Your task to perform on an android device: show emergency info Image 0: 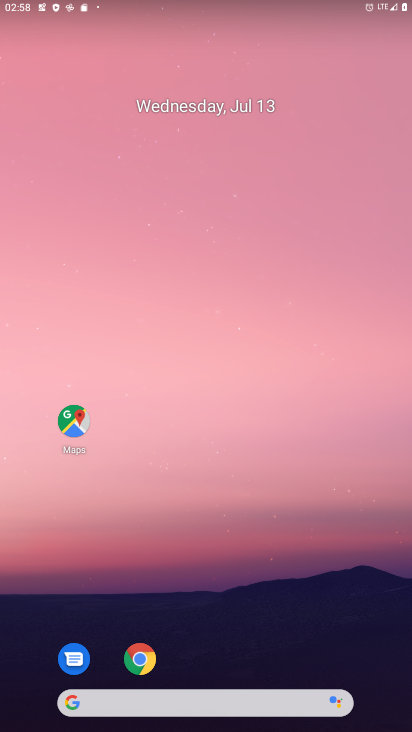
Step 0: click (201, 689)
Your task to perform on an android device: show emergency info Image 1: 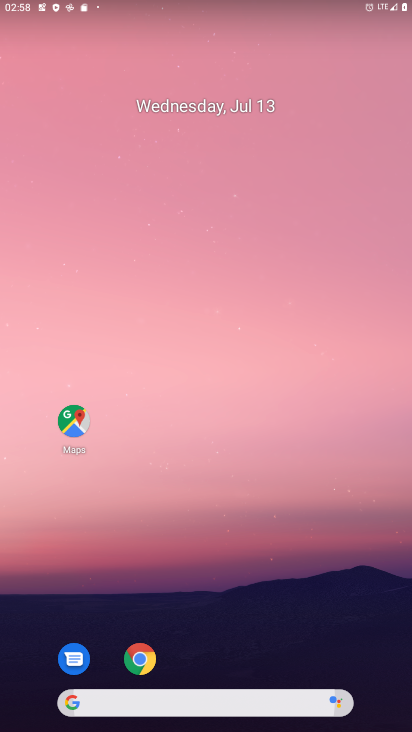
Step 1: drag from (195, 354) to (195, 221)
Your task to perform on an android device: show emergency info Image 2: 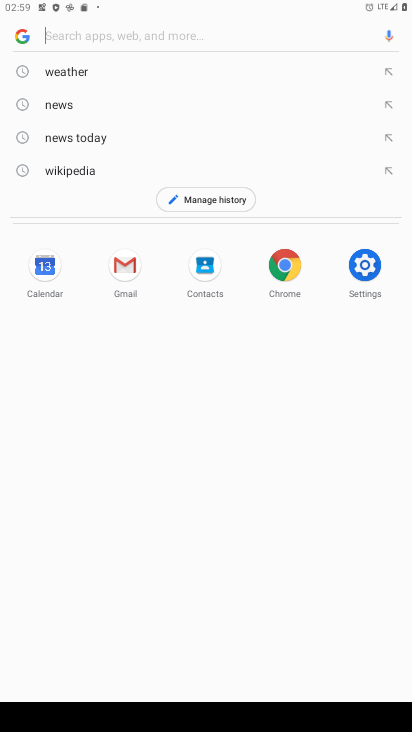
Step 2: press home button
Your task to perform on an android device: show emergency info Image 3: 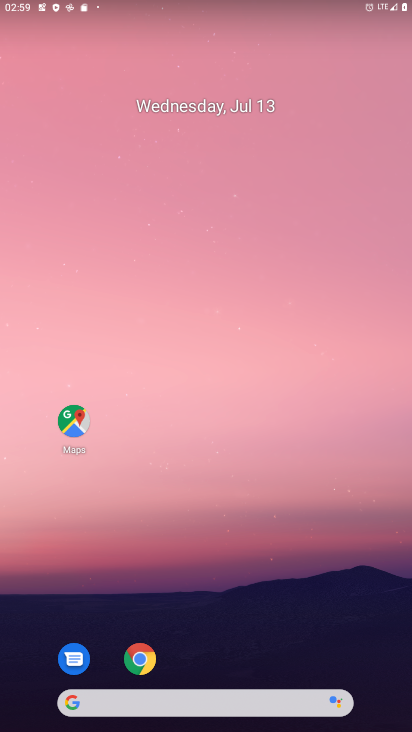
Step 3: click (233, 724)
Your task to perform on an android device: show emergency info Image 4: 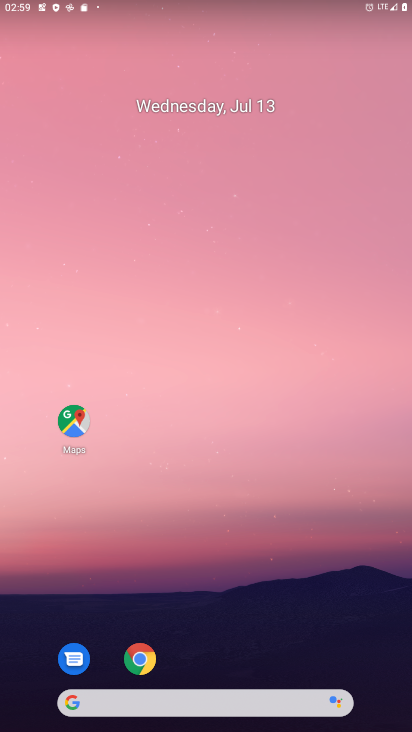
Step 4: drag from (234, 400) to (235, 193)
Your task to perform on an android device: show emergency info Image 5: 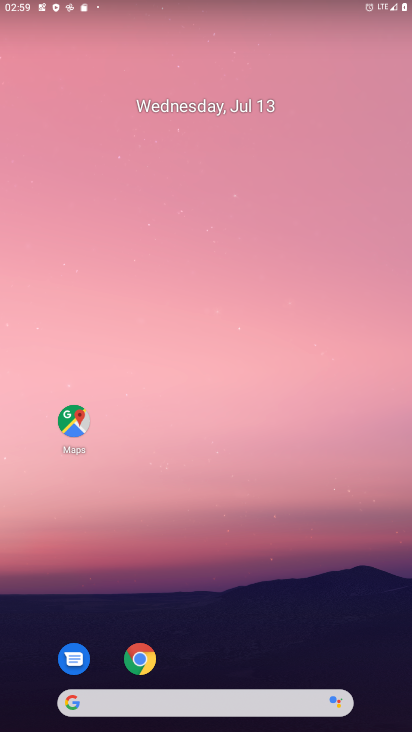
Step 5: drag from (211, 721) to (216, 154)
Your task to perform on an android device: show emergency info Image 6: 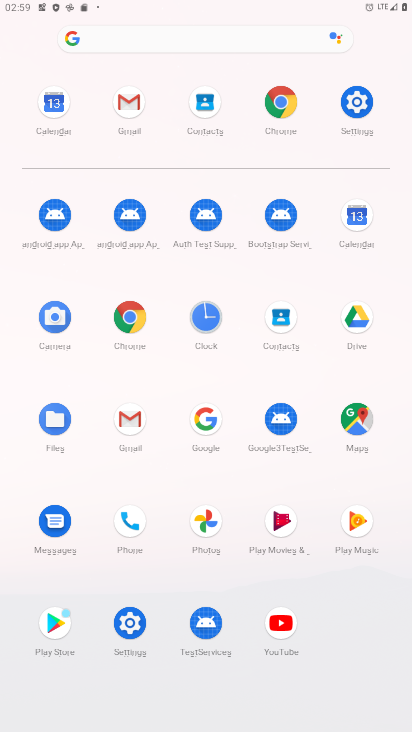
Step 6: click (352, 105)
Your task to perform on an android device: show emergency info Image 7: 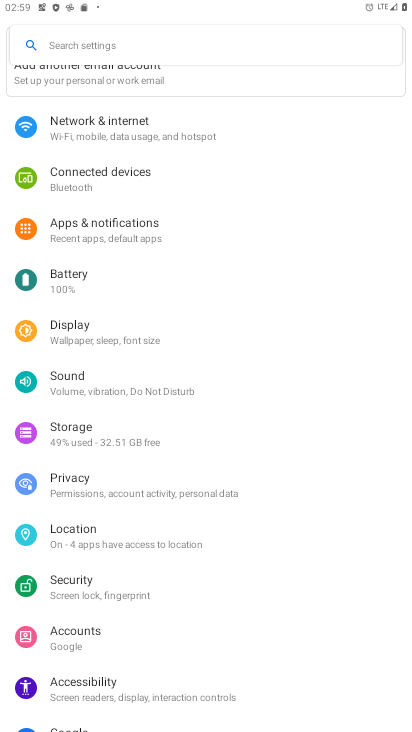
Step 7: drag from (170, 710) to (169, 610)
Your task to perform on an android device: show emergency info Image 8: 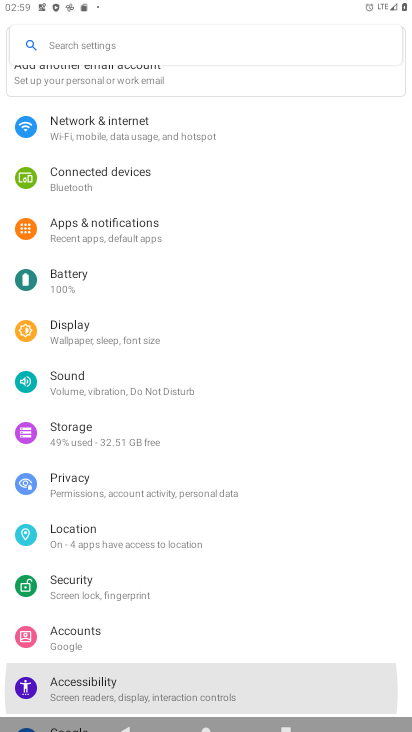
Step 8: drag from (167, 307) to (164, 211)
Your task to perform on an android device: show emergency info Image 9: 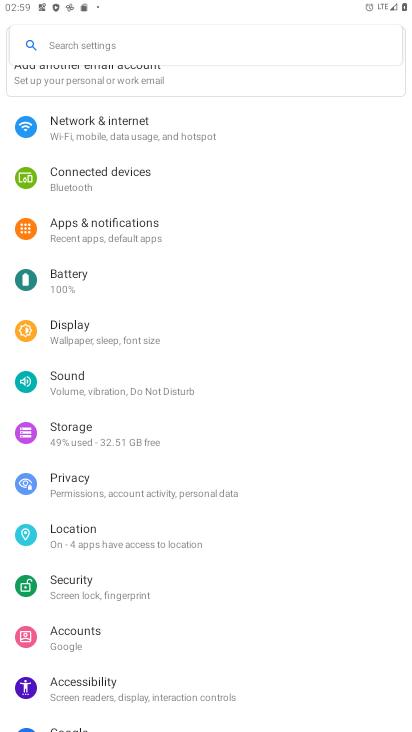
Step 9: drag from (210, 697) to (210, 346)
Your task to perform on an android device: show emergency info Image 10: 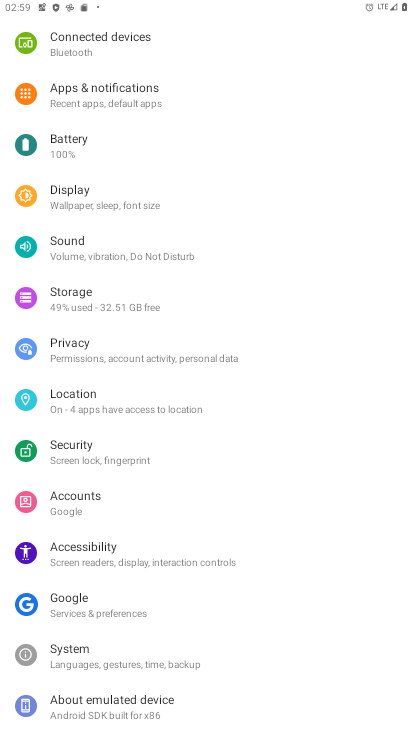
Step 10: click (79, 698)
Your task to perform on an android device: show emergency info Image 11: 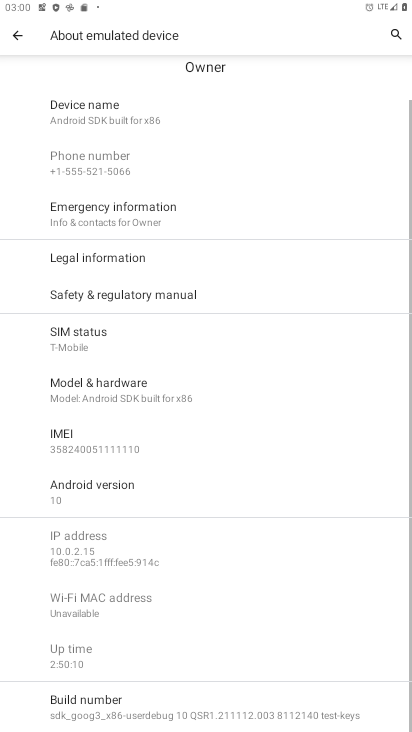
Step 11: click (113, 212)
Your task to perform on an android device: show emergency info Image 12: 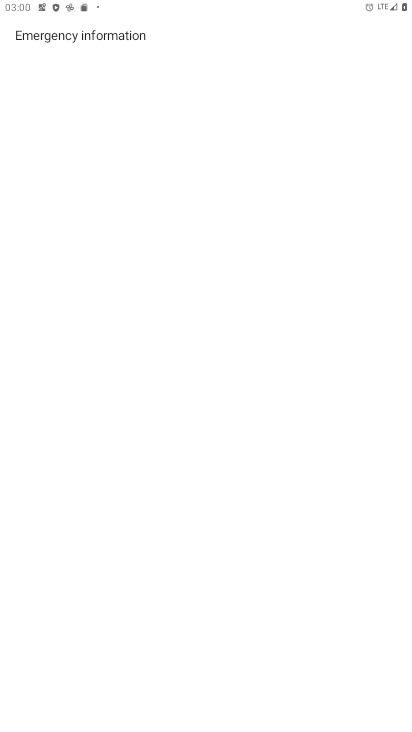
Step 12: task complete